Your task to perform on an android device: Open sound settings Image 0: 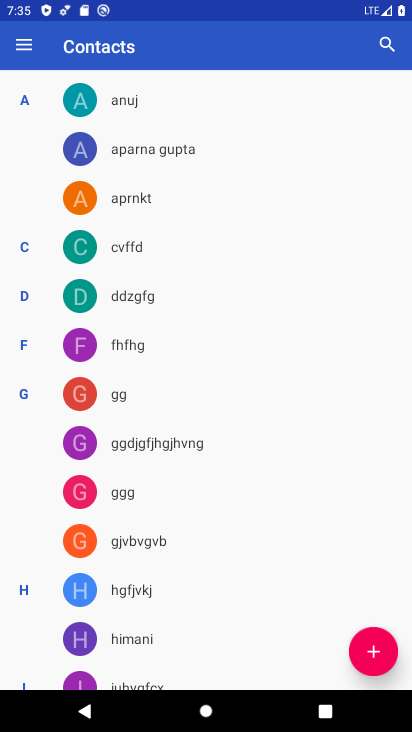
Step 0: press home button
Your task to perform on an android device: Open sound settings Image 1: 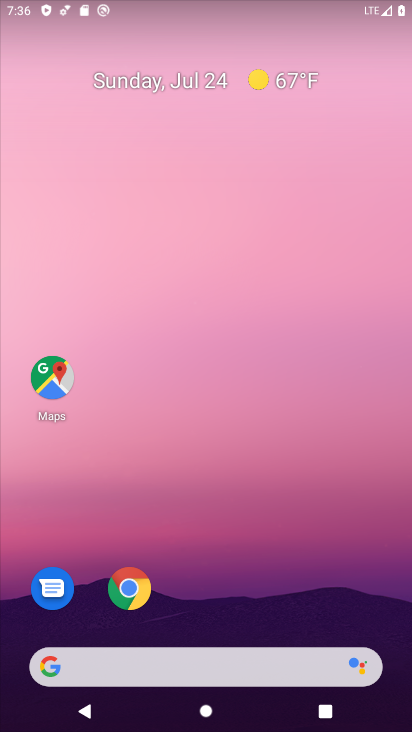
Step 1: drag from (240, 663) to (217, 278)
Your task to perform on an android device: Open sound settings Image 2: 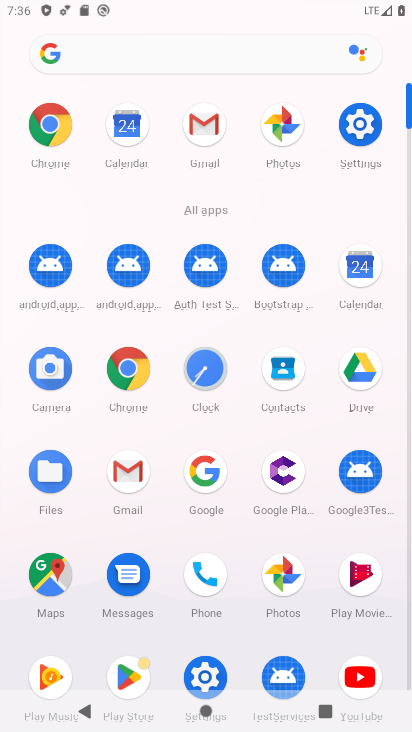
Step 2: click (361, 116)
Your task to perform on an android device: Open sound settings Image 3: 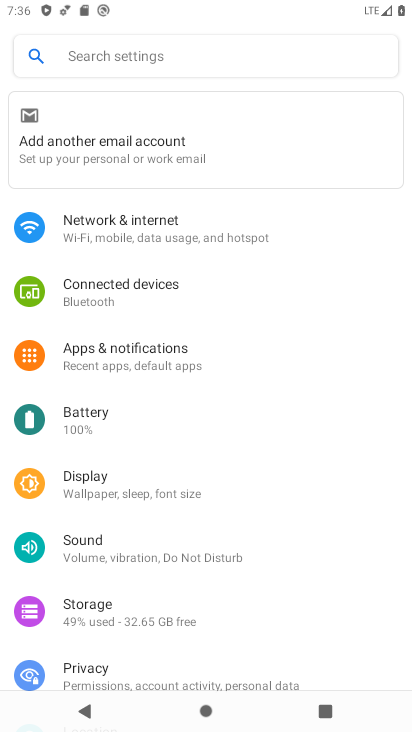
Step 3: click (108, 534)
Your task to perform on an android device: Open sound settings Image 4: 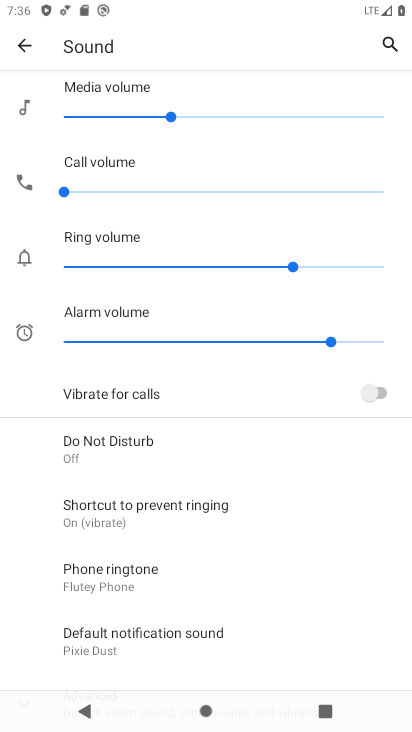
Step 4: task complete